Your task to perform on an android device: What's the weather going to be tomorrow? Image 0: 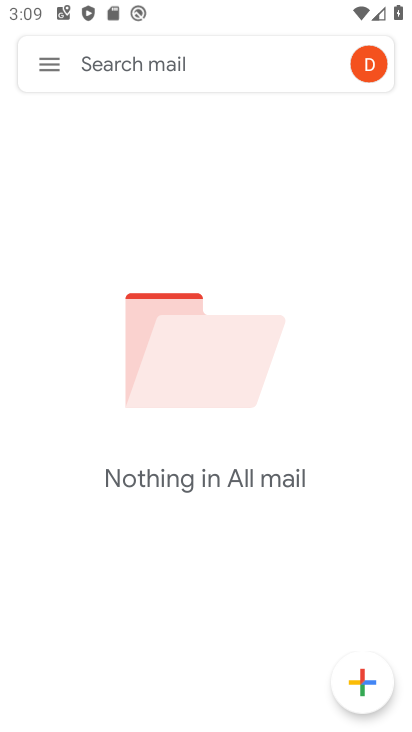
Step 0: press home button
Your task to perform on an android device: What's the weather going to be tomorrow? Image 1: 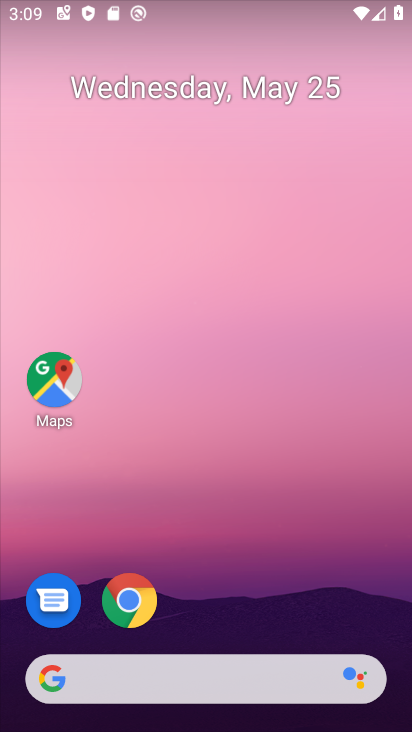
Step 1: click (122, 672)
Your task to perform on an android device: What's the weather going to be tomorrow? Image 2: 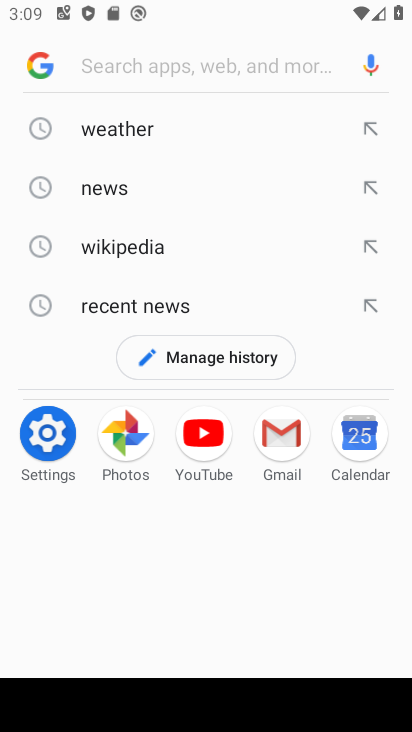
Step 2: click (93, 138)
Your task to perform on an android device: What's the weather going to be tomorrow? Image 3: 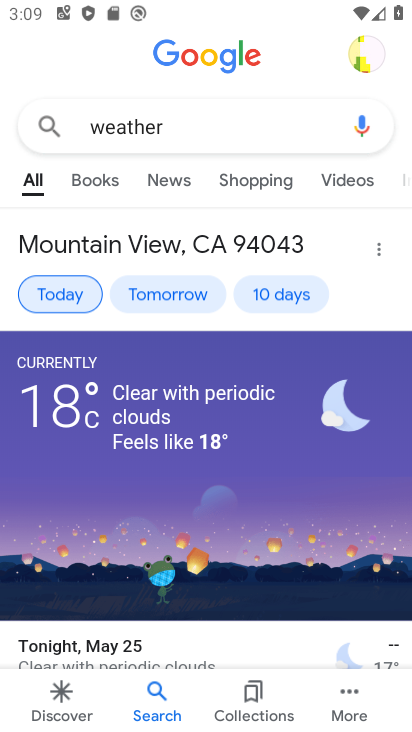
Step 3: task complete